Your task to perform on an android device: show emergency info Image 0: 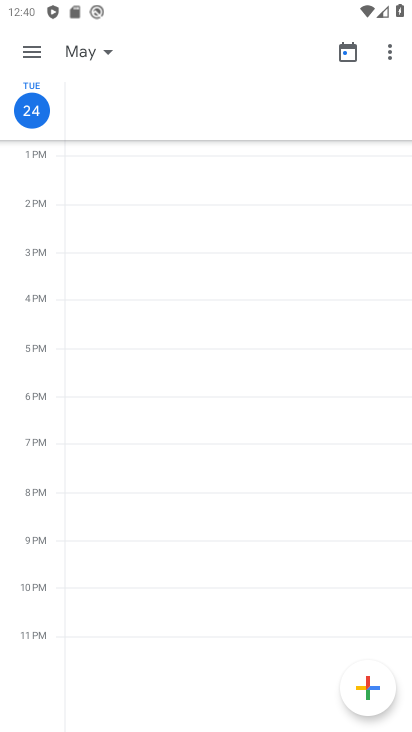
Step 0: press home button
Your task to perform on an android device: show emergency info Image 1: 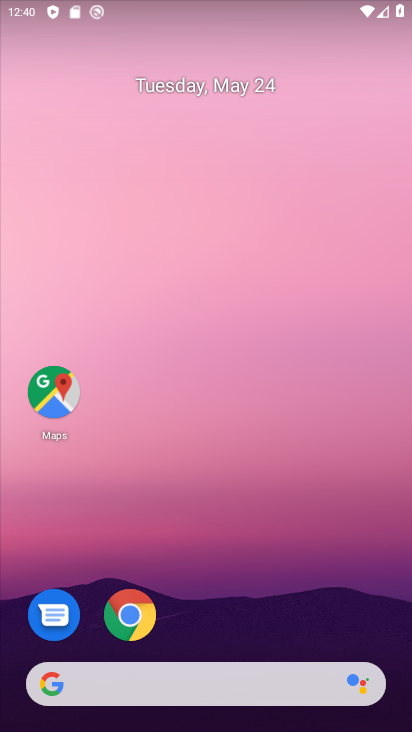
Step 1: drag from (217, 638) to (247, 109)
Your task to perform on an android device: show emergency info Image 2: 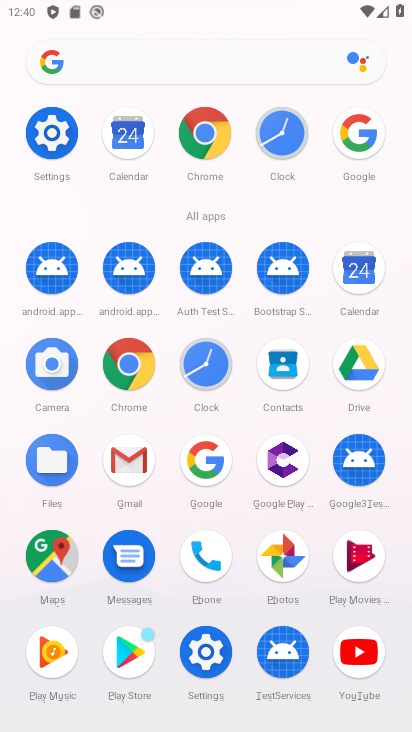
Step 2: click (207, 649)
Your task to perform on an android device: show emergency info Image 3: 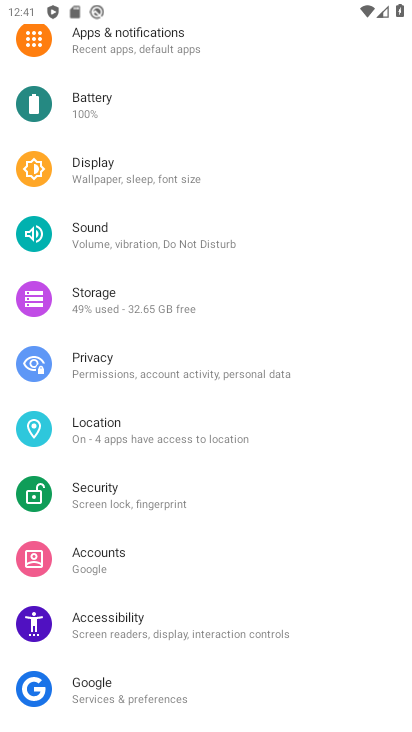
Step 3: drag from (152, 684) to (158, 176)
Your task to perform on an android device: show emergency info Image 4: 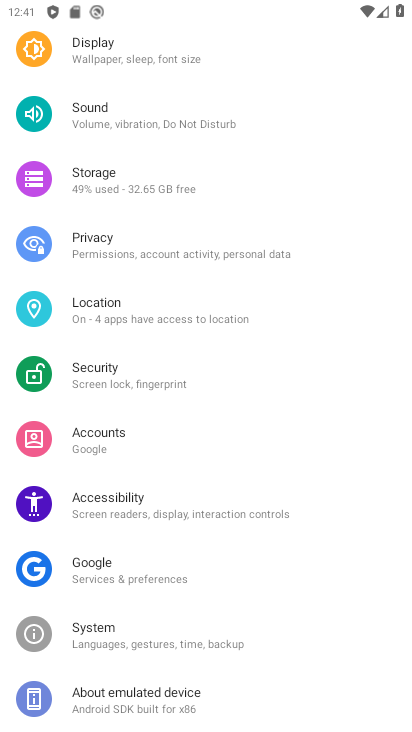
Step 4: click (142, 699)
Your task to perform on an android device: show emergency info Image 5: 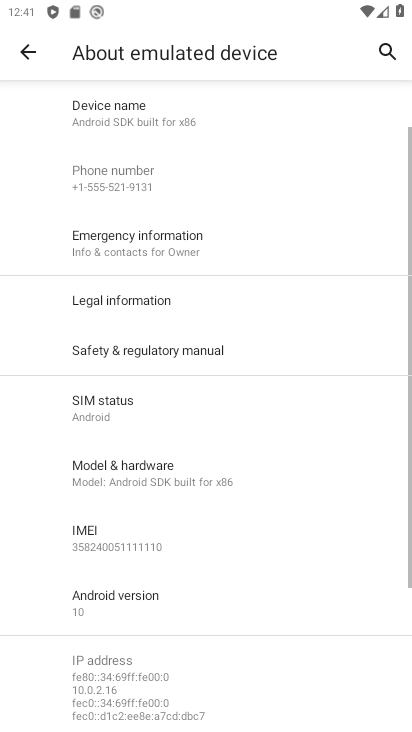
Step 5: click (135, 242)
Your task to perform on an android device: show emergency info Image 6: 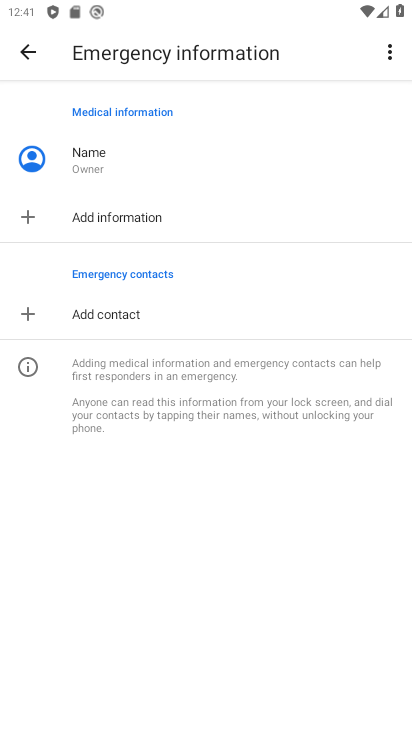
Step 6: task complete